Your task to perform on an android device: Open sound settings Image 0: 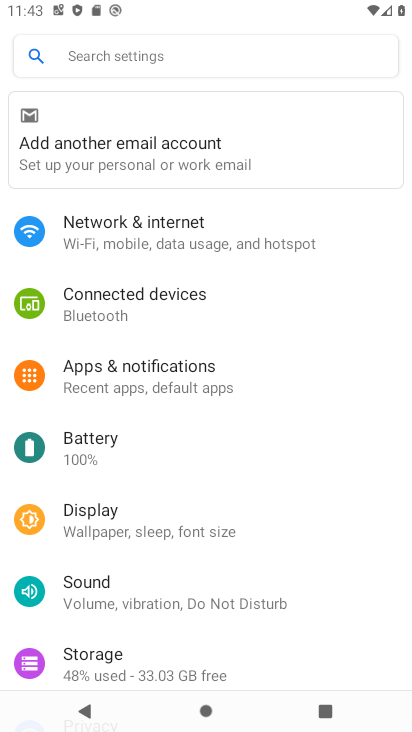
Step 0: drag from (204, 621) to (273, 113)
Your task to perform on an android device: Open sound settings Image 1: 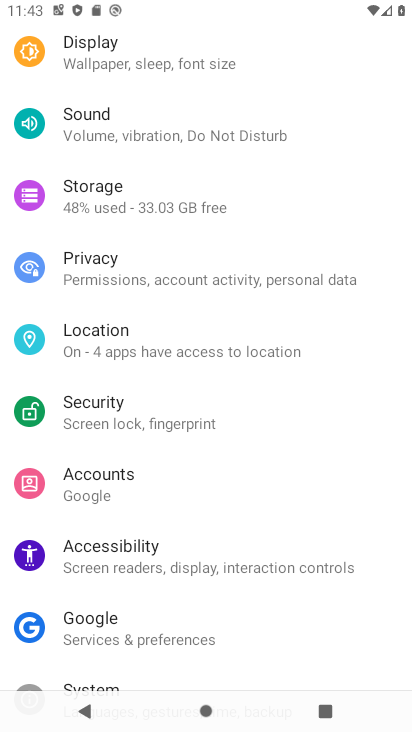
Step 1: click (94, 327)
Your task to perform on an android device: Open sound settings Image 2: 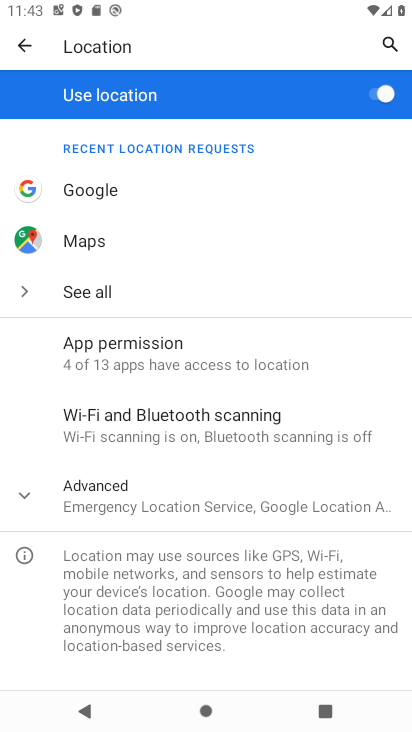
Step 2: click (14, 43)
Your task to perform on an android device: Open sound settings Image 3: 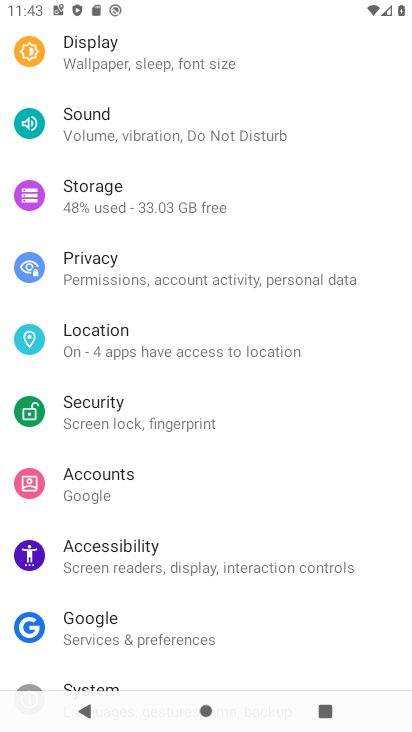
Step 3: click (133, 132)
Your task to perform on an android device: Open sound settings Image 4: 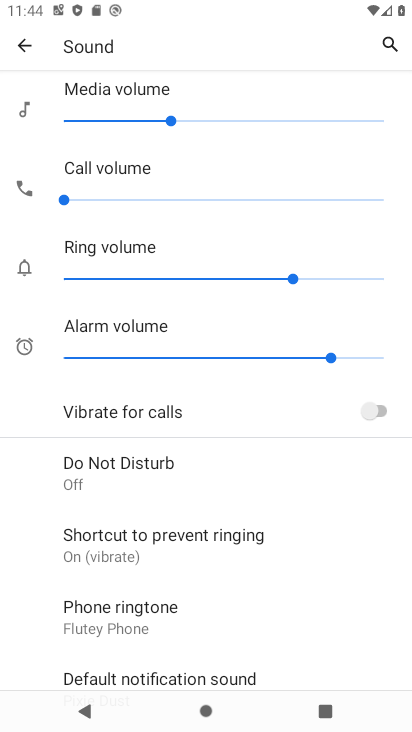
Step 4: task complete